Your task to perform on an android device: Open calendar and show me the third week of next month Image 0: 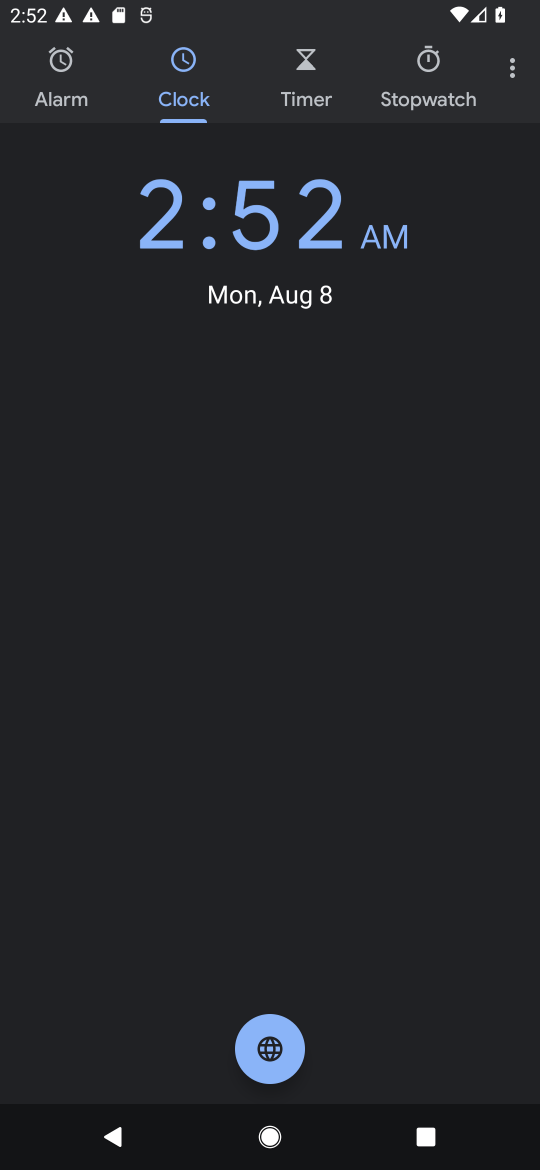
Step 0: press home button
Your task to perform on an android device: Open calendar and show me the third week of next month Image 1: 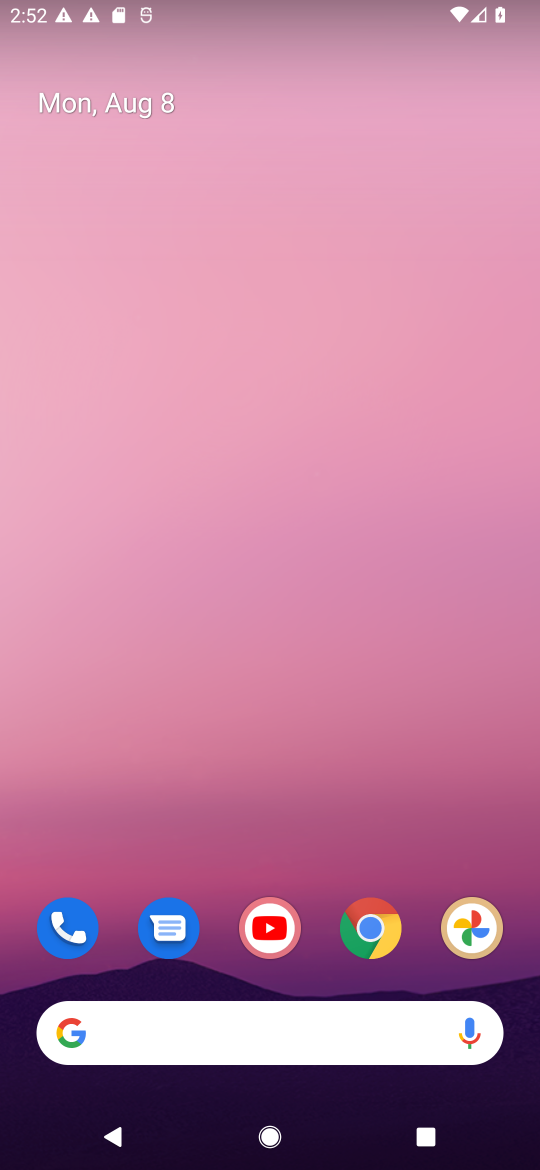
Step 1: click (89, 104)
Your task to perform on an android device: Open calendar and show me the third week of next month Image 2: 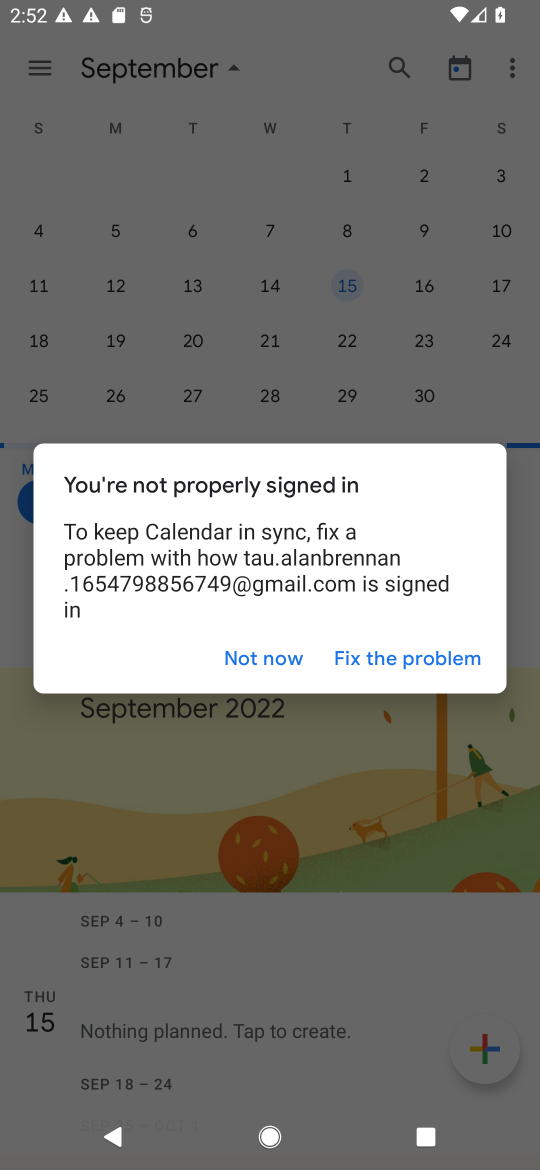
Step 2: click (240, 666)
Your task to perform on an android device: Open calendar and show me the third week of next month Image 3: 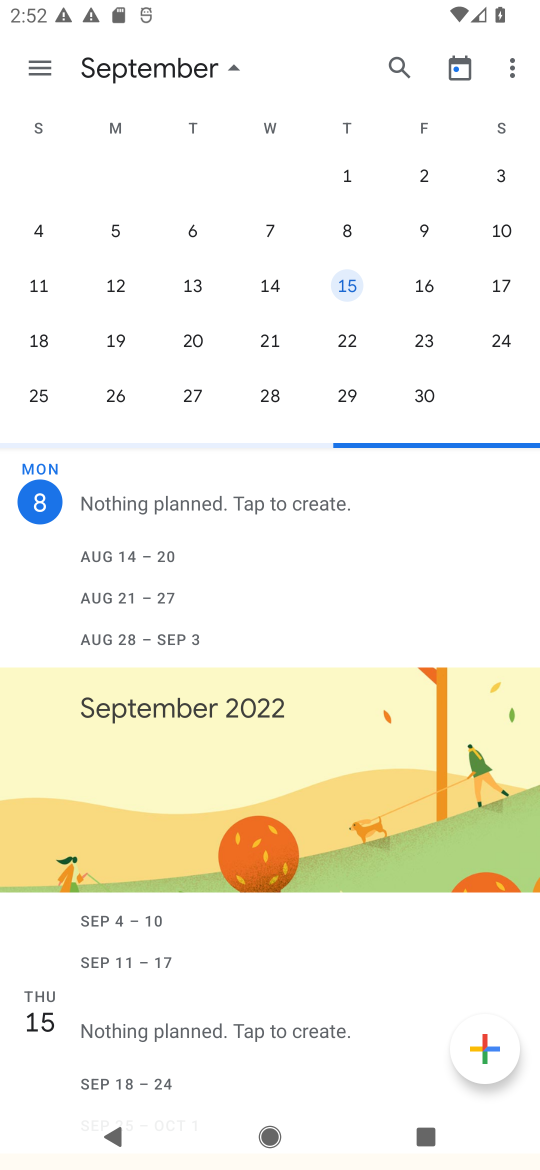
Step 3: click (342, 297)
Your task to perform on an android device: Open calendar and show me the third week of next month Image 4: 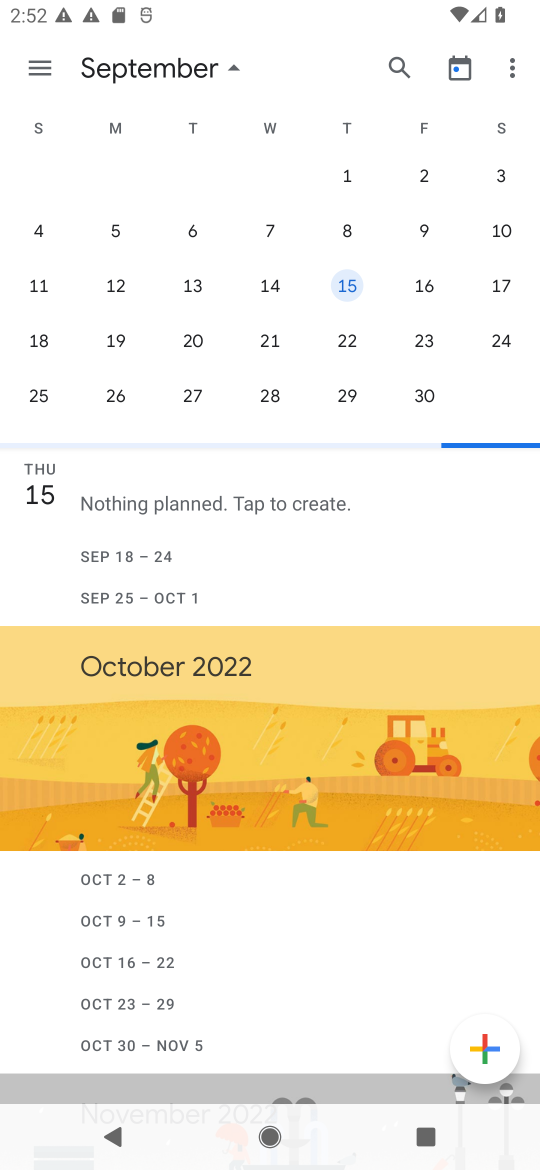
Step 4: task complete